Your task to perform on an android device: Turn off the flashlight Image 0: 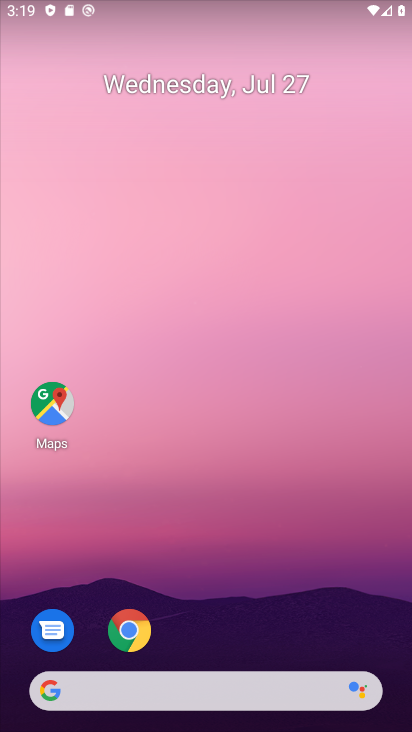
Step 0: press home button
Your task to perform on an android device: Turn off the flashlight Image 1: 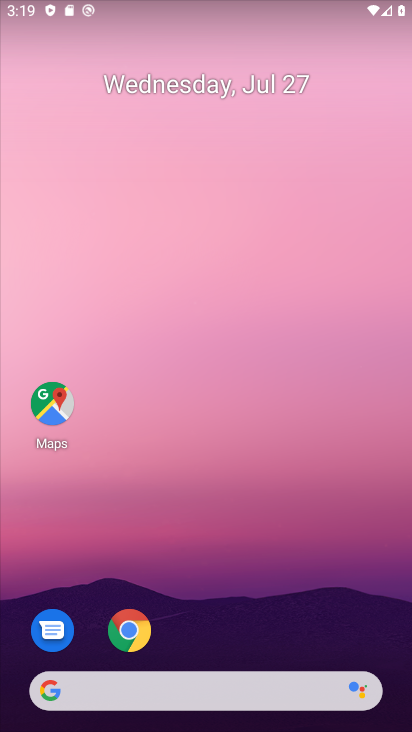
Step 1: drag from (221, 649) to (269, 145)
Your task to perform on an android device: Turn off the flashlight Image 2: 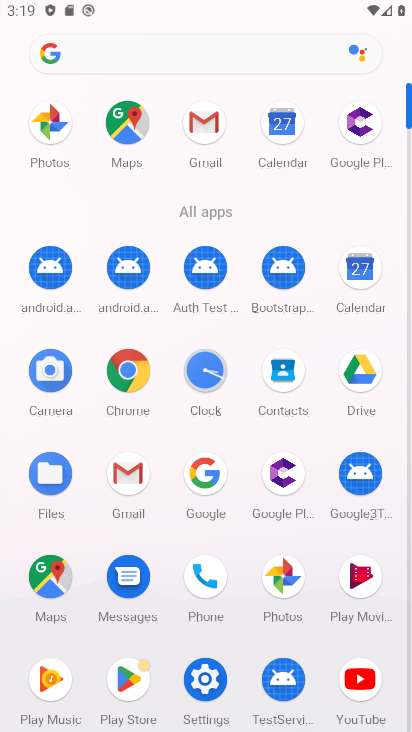
Step 2: click (206, 673)
Your task to perform on an android device: Turn off the flashlight Image 3: 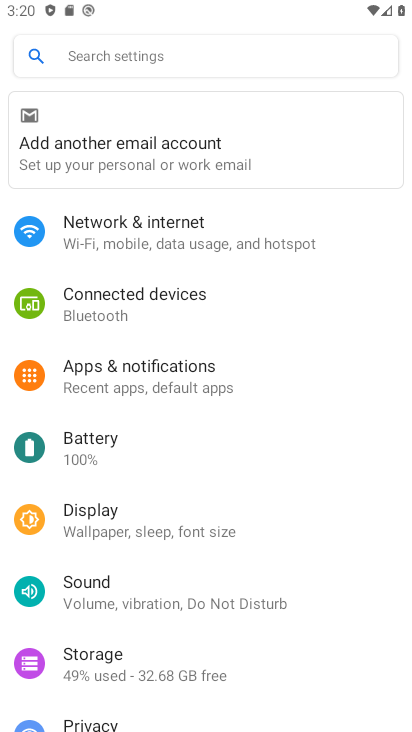
Step 3: click (128, 56)
Your task to perform on an android device: Turn off the flashlight Image 4: 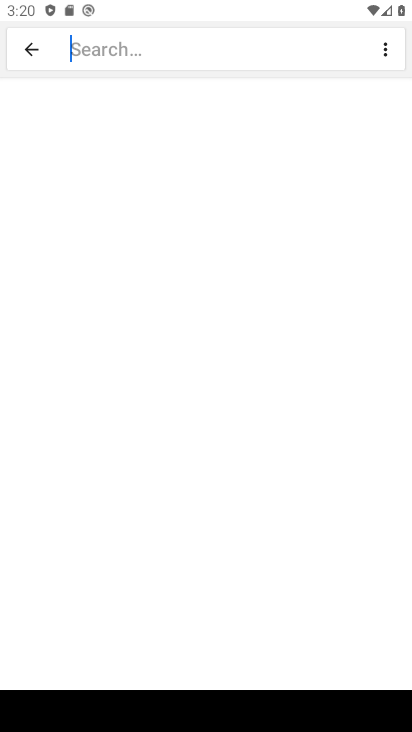
Step 4: type "flashlight"
Your task to perform on an android device: Turn off the flashlight Image 5: 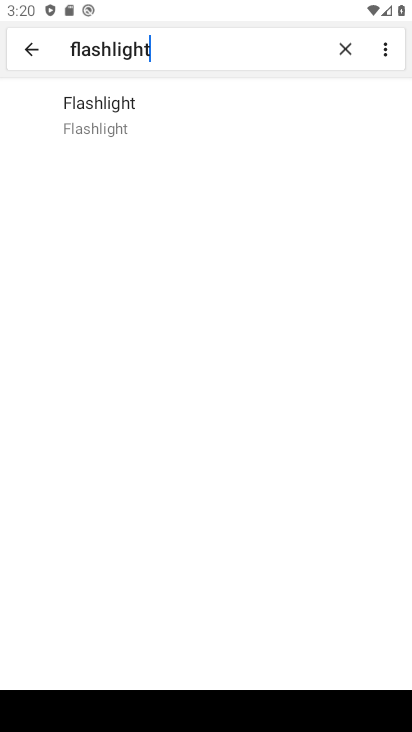
Step 5: click (161, 107)
Your task to perform on an android device: Turn off the flashlight Image 6: 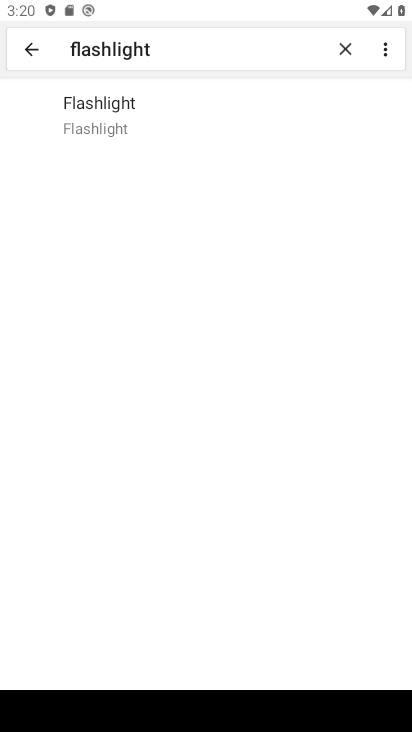
Step 6: click (161, 107)
Your task to perform on an android device: Turn off the flashlight Image 7: 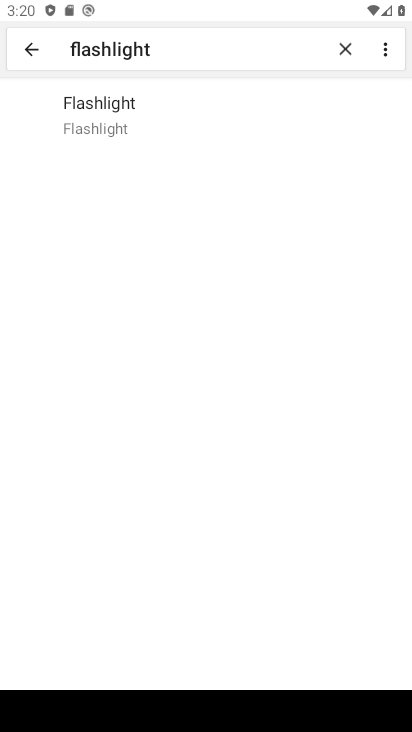
Step 7: task complete